Your task to perform on an android device: turn on translation in the chrome app Image 0: 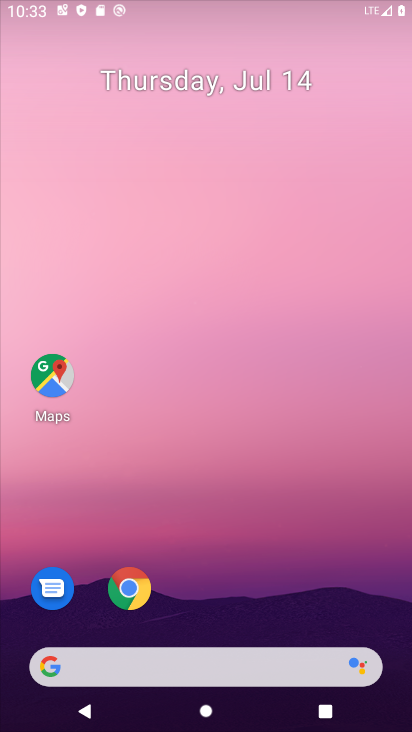
Step 0: drag from (376, 618) to (202, 21)
Your task to perform on an android device: turn on translation in the chrome app Image 1: 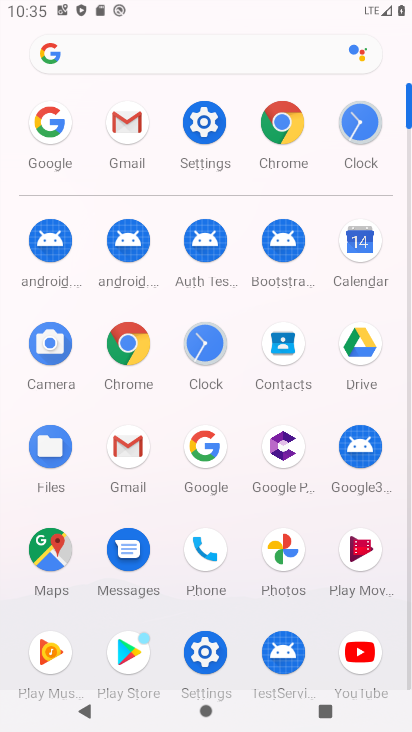
Step 1: click (122, 360)
Your task to perform on an android device: turn on translation in the chrome app Image 2: 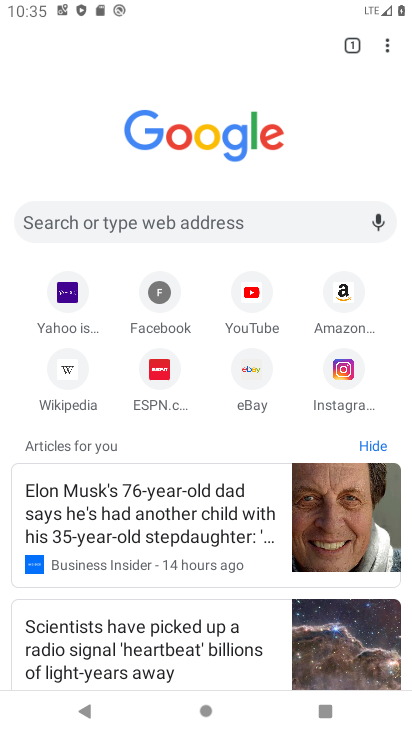
Step 2: click (387, 45)
Your task to perform on an android device: turn on translation in the chrome app Image 3: 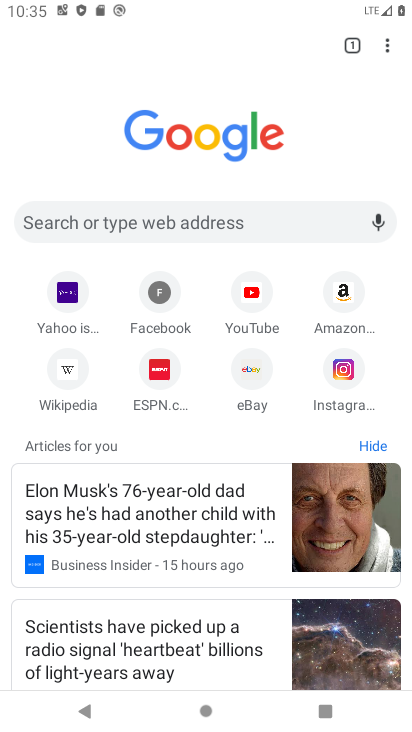
Step 3: click (386, 44)
Your task to perform on an android device: turn on translation in the chrome app Image 4: 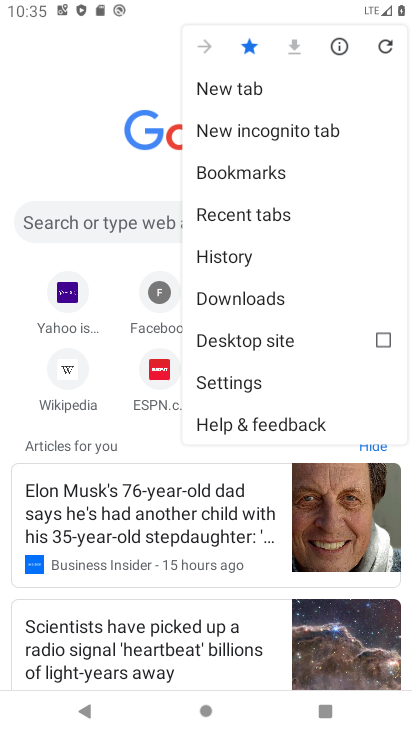
Step 4: click (246, 387)
Your task to perform on an android device: turn on translation in the chrome app Image 5: 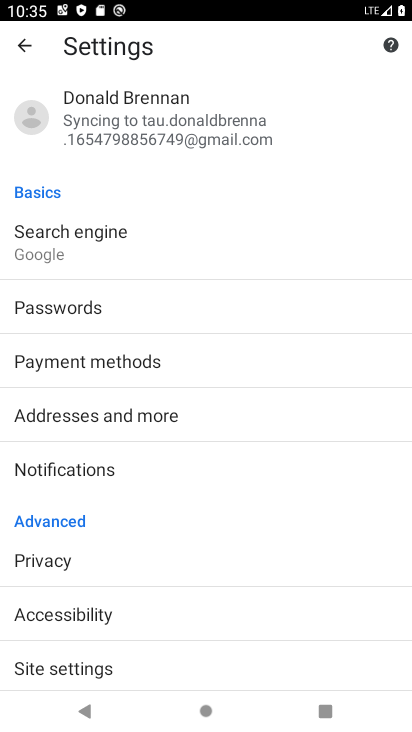
Step 5: drag from (89, 667) to (110, 308)
Your task to perform on an android device: turn on translation in the chrome app Image 6: 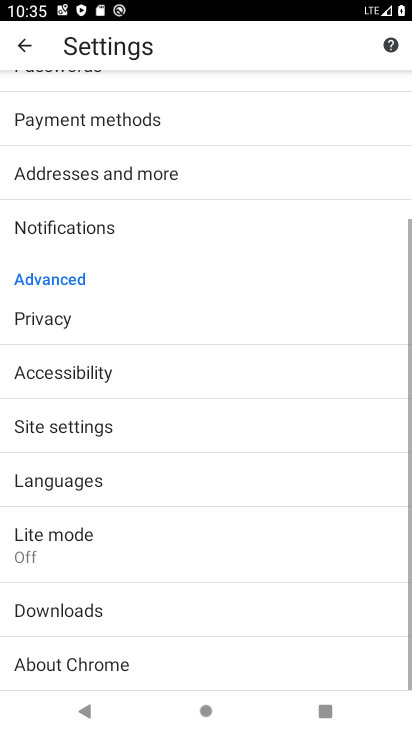
Step 6: click (76, 480)
Your task to perform on an android device: turn on translation in the chrome app Image 7: 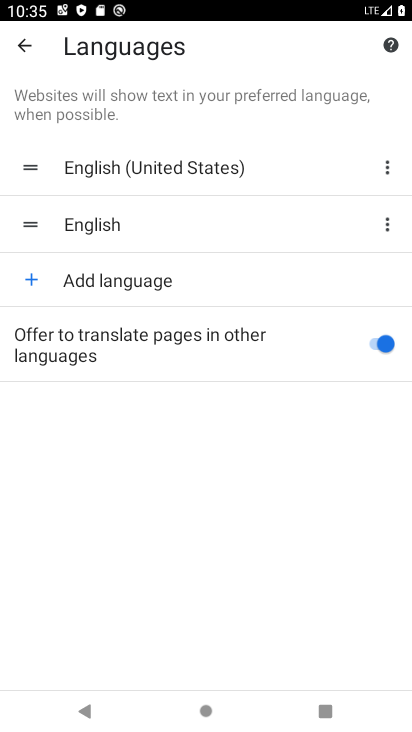
Step 7: task complete